Your task to perform on an android device: turn off improve location accuracy Image 0: 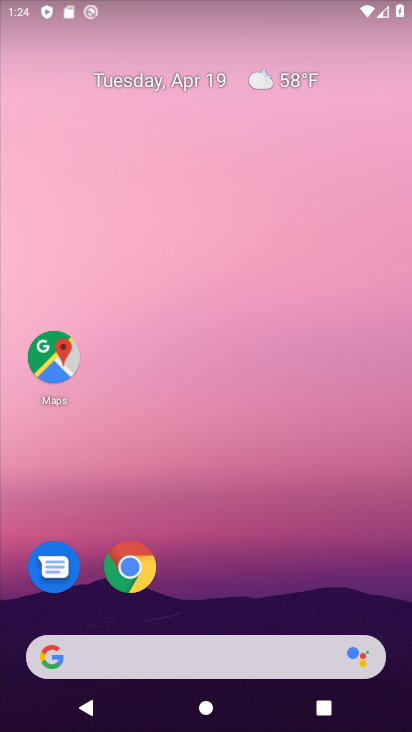
Step 0: drag from (300, 599) to (272, 90)
Your task to perform on an android device: turn off improve location accuracy Image 1: 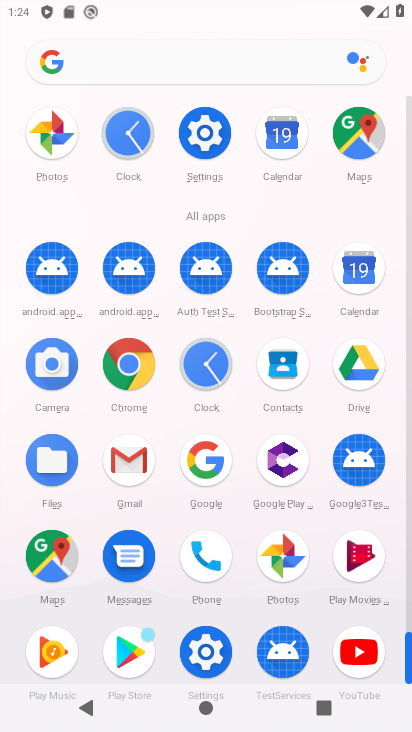
Step 1: click (203, 144)
Your task to perform on an android device: turn off improve location accuracy Image 2: 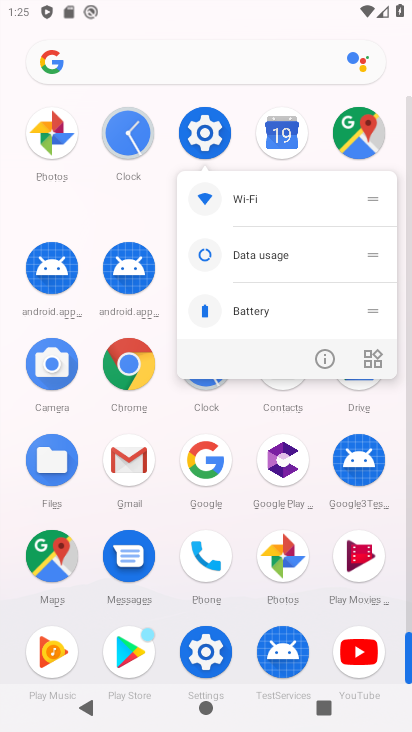
Step 2: click (213, 135)
Your task to perform on an android device: turn off improve location accuracy Image 3: 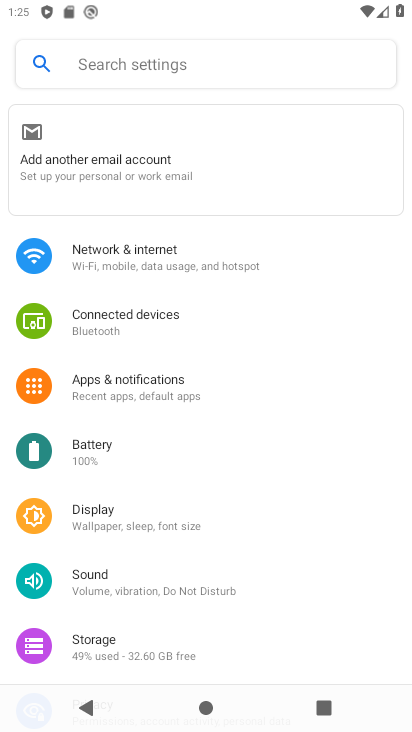
Step 3: drag from (150, 575) to (160, 266)
Your task to perform on an android device: turn off improve location accuracy Image 4: 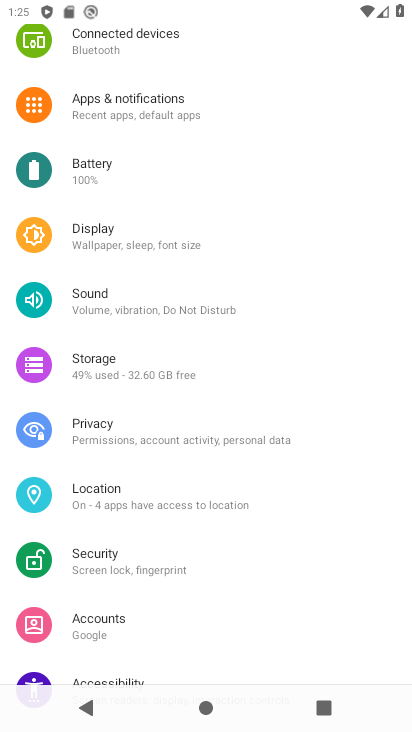
Step 4: click (154, 512)
Your task to perform on an android device: turn off improve location accuracy Image 5: 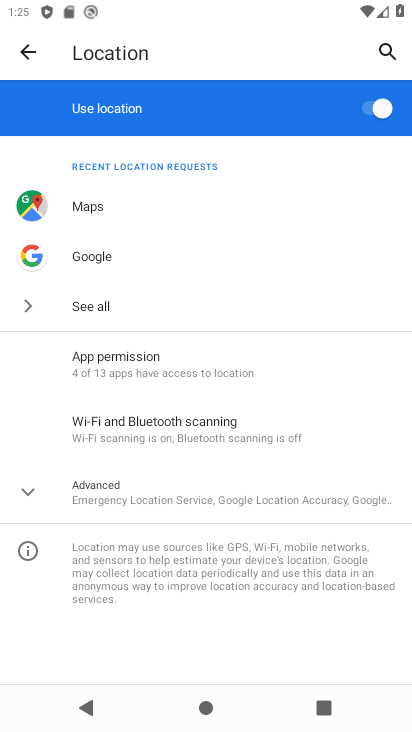
Step 5: click (27, 491)
Your task to perform on an android device: turn off improve location accuracy Image 6: 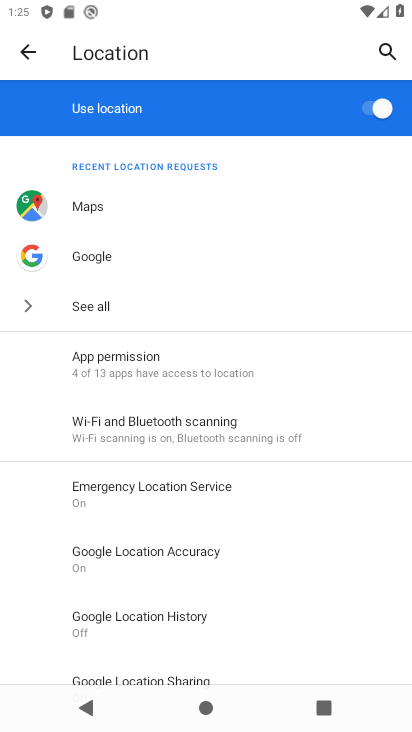
Step 6: click (127, 553)
Your task to perform on an android device: turn off improve location accuracy Image 7: 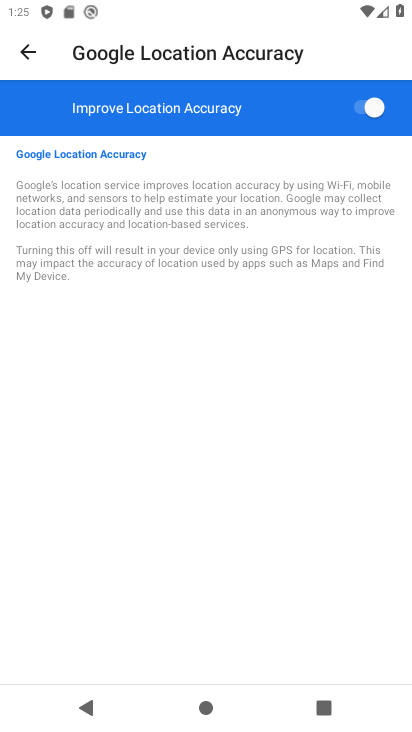
Step 7: click (368, 112)
Your task to perform on an android device: turn off improve location accuracy Image 8: 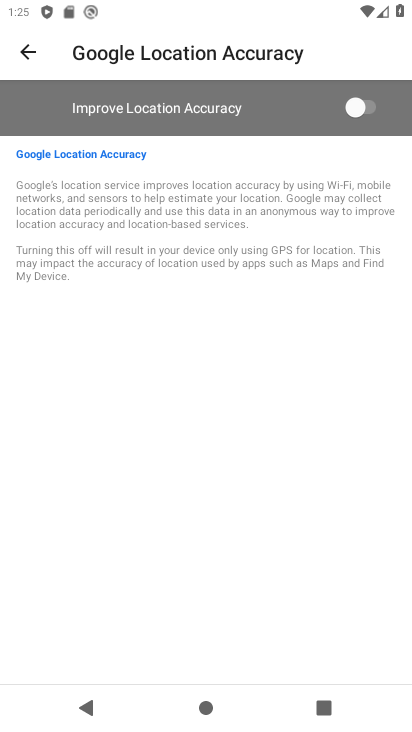
Step 8: task complete